Your task to perform on an android device: toggle notifications settings in the gmail app Image 0: 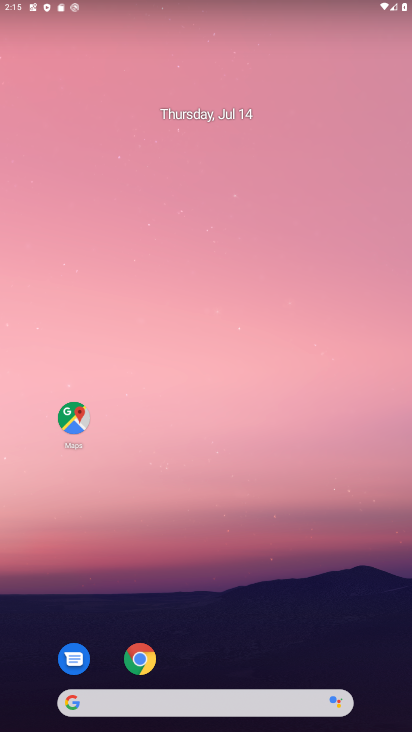
Step 0: press home button
Your task to perform on an android device: toggle notifications settings in the gmail app Image 1: 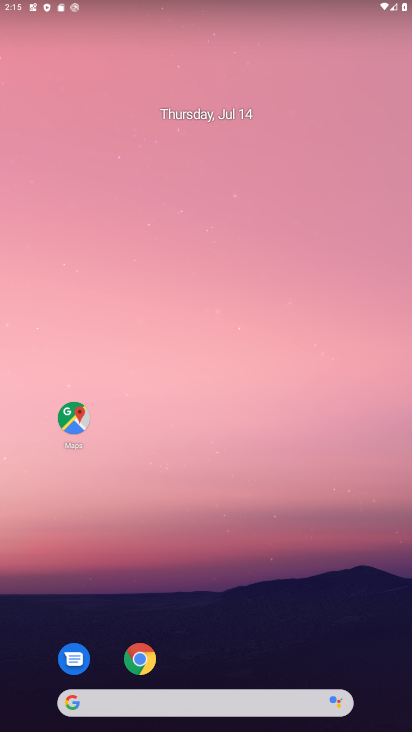
Step 1: drag from (247, 671) to (249, 127)
Your task to perform on an android device: toggle notifications settings in the gmail app Image 2: 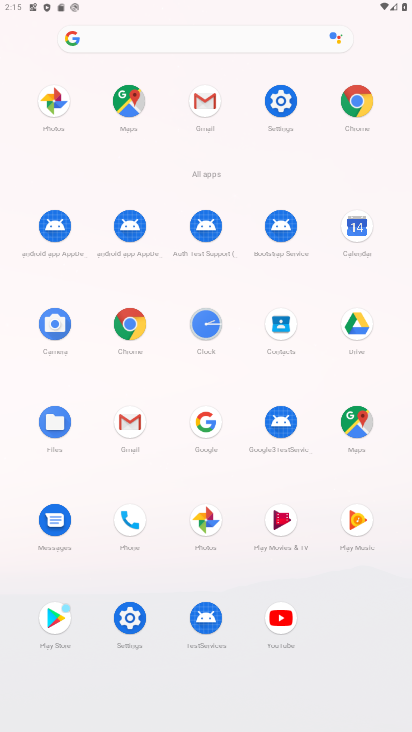
Step 2: click (201, 100)
Your task to perform on an android device: toggle notifications settings in the gmail app Image 3: 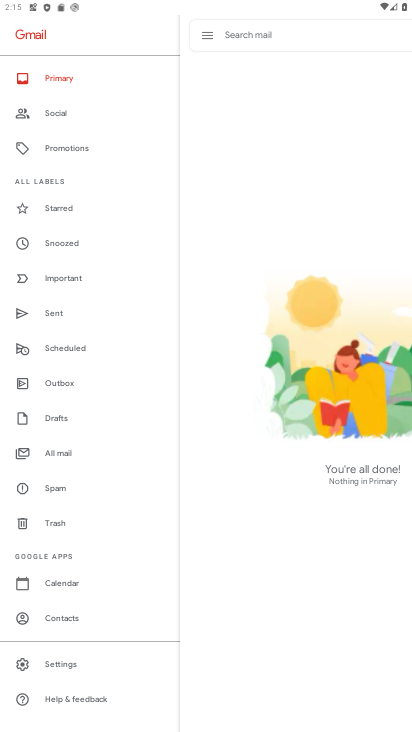
Step 3: click (62, 663)
Your task to perform on an android device: toggle notifications settings in the gmail app Image 4: 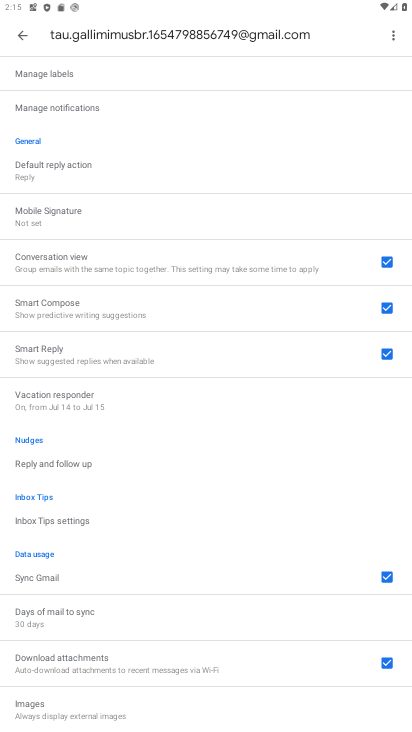
Step 4: click (68, 110)
Your task to perform on an android device: toggle notifications settings in the gmail app Image 5: 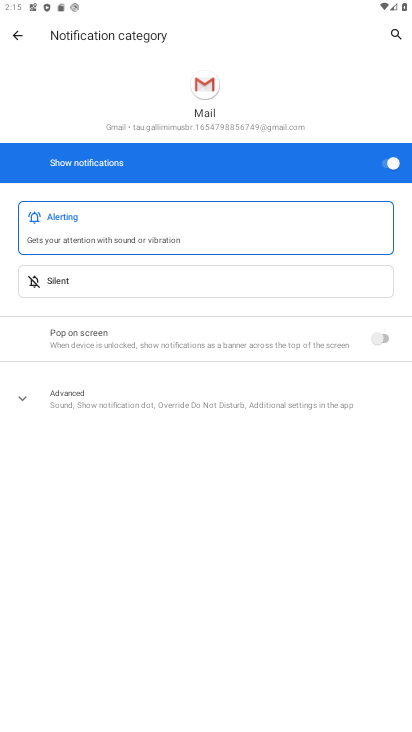
Step 5: click (398, 167)
Your task to perform on an android device: toggle notifications settings in the gmail app Image 6: 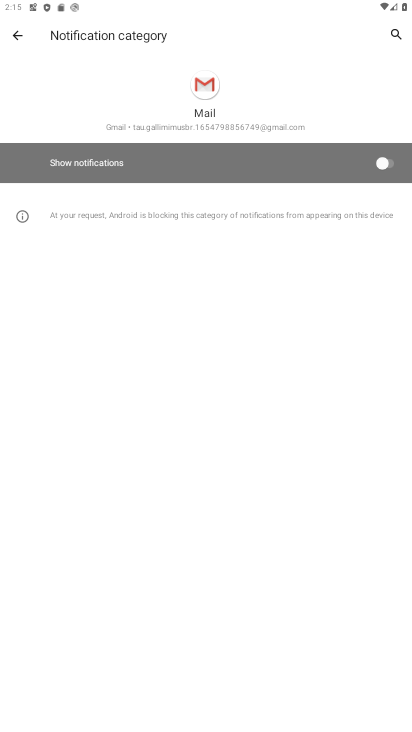
Step 6: task complete